Your task to perform on an android device: Open Chrome and go to the settings page Image 0: 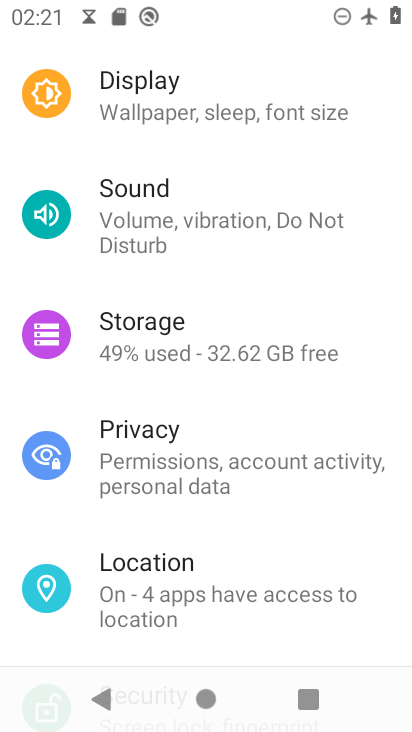
Step 0: press home button
Your task to perform on an android device: Open Chrome and go to the settings page Image 1: 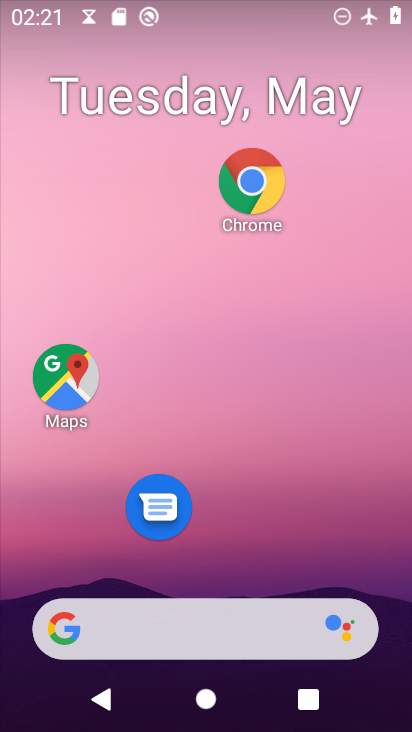
Step 1: click (255, 177)
Your task to perform on an android device: Open Chrome and go to the settings page Image 2: 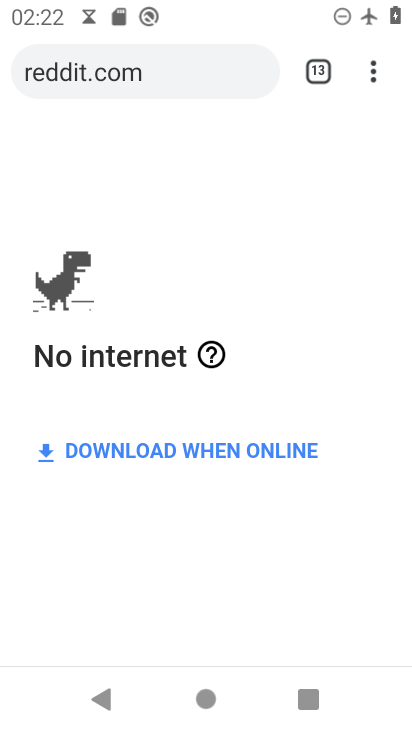
Step 2: click (372, 69)
Your task to perform on an android device: Open Chrome and go to the settings page Image 3: 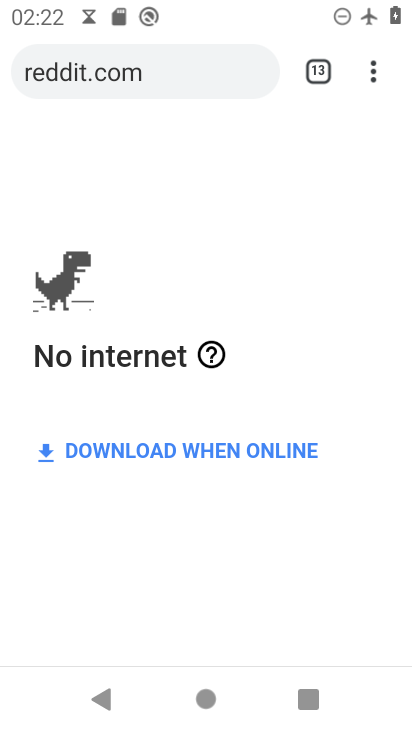
Step 3: click (372, 69)
Your task to perform on an android device: Open Chrome and go to the settings page Image 4: 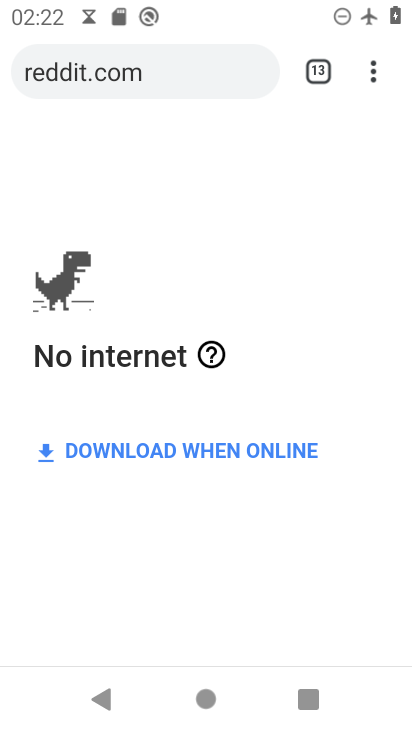
Step 4: click (376, 77)
Your task to perform on an android device: Open Chrome and go to the settings page Image 5: 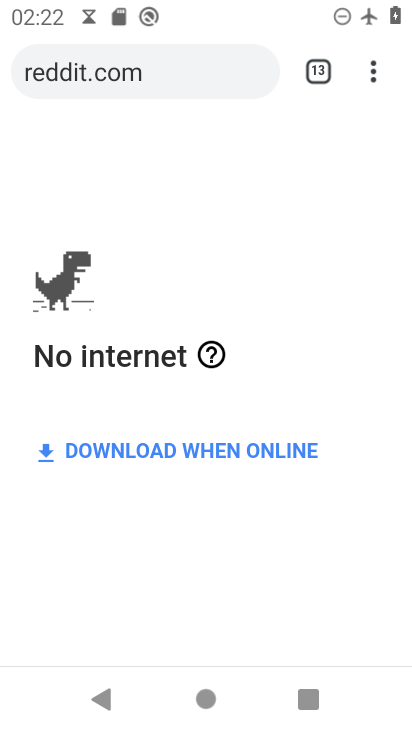
Step 5: click (393, 70)
Your task to perform on an android device: Open Chrome and go to the settings page Image 6: 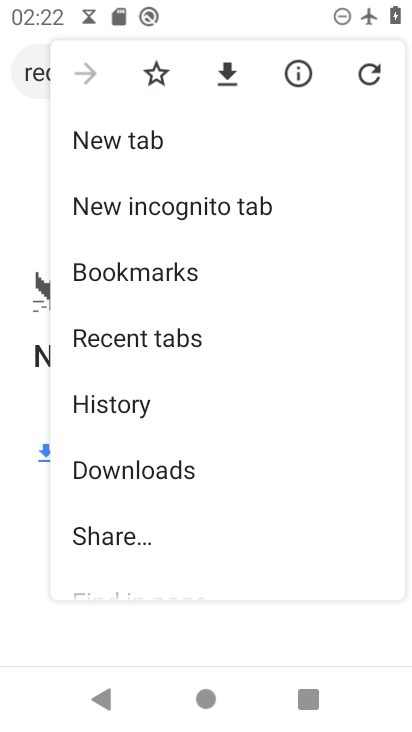
Step 6: drag from (238, 496) to (283, 216)
Your task to perform on an android device: Open Chrome and go to the settings page Image 7: 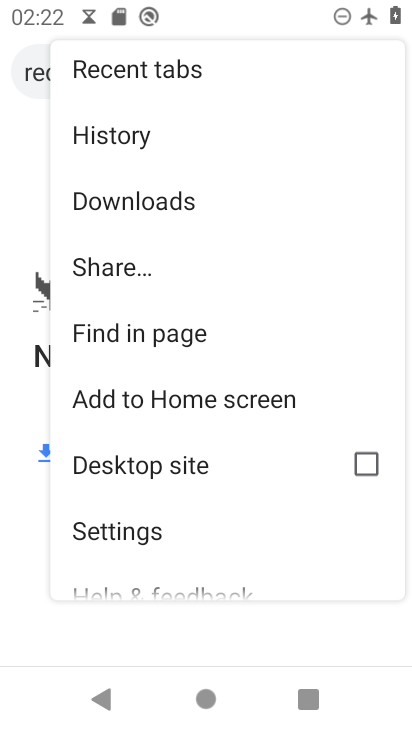
Step 7: click (188, 531)
Your task to perform on an android device: Open Chrome and go to the settings page Image 8: 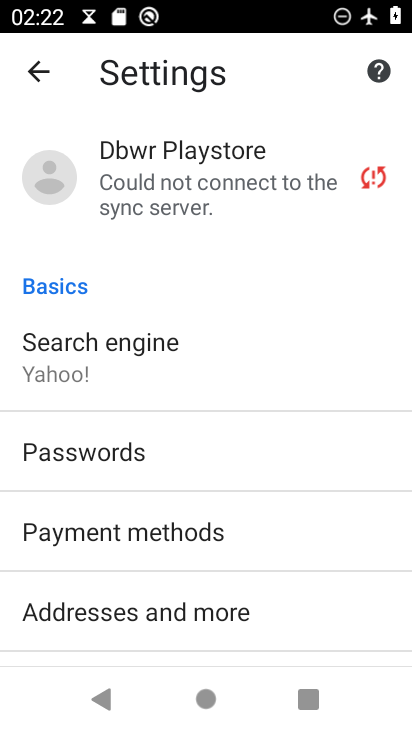
Step 8: task complete